Your task to perform on an android device: delete the emails in spam in the gmail app Image 0: 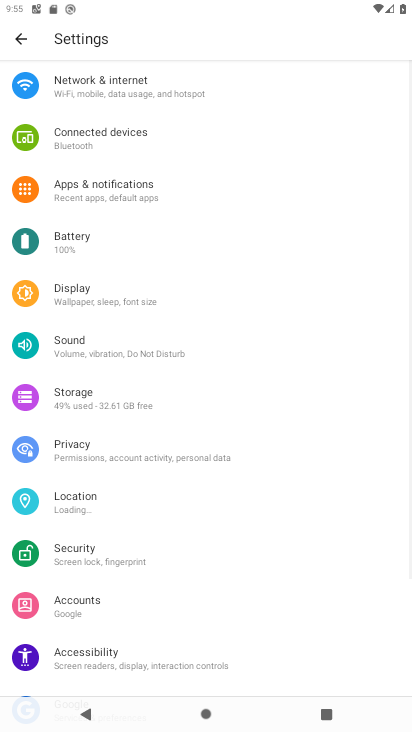
Step 0: press home button
Your task to perform on an android device: delete the emails in spam in the gmail app Image 1: 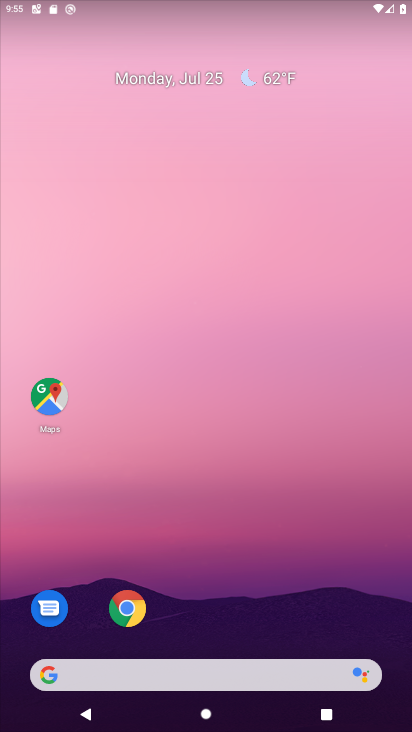
Step 1: drag from (235, 635) to (220, 170)
Your task to perform on an android device: delete the emails in spam in the gmail app Image 2: 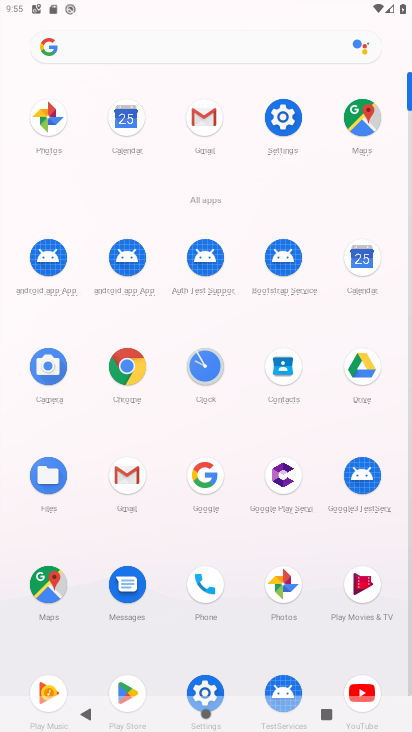
Step 2: click (200, 113)
Your task to perform on an android device: delete the emails in spam in the gmail app Image 3: 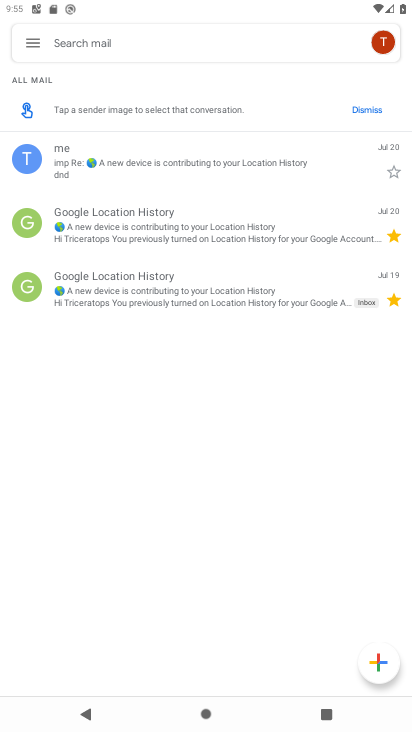
Step 3: click (29, 41)
Your task to perform on an android device: delete the emails in spam in the gmail app Image 4: 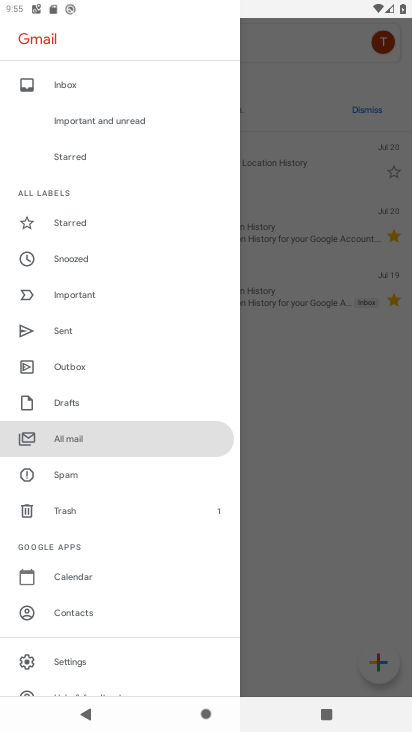
Step 4: click (78, 478)
Your task to perform on an android device: delete the emails in spam in the gmail app Image 5: 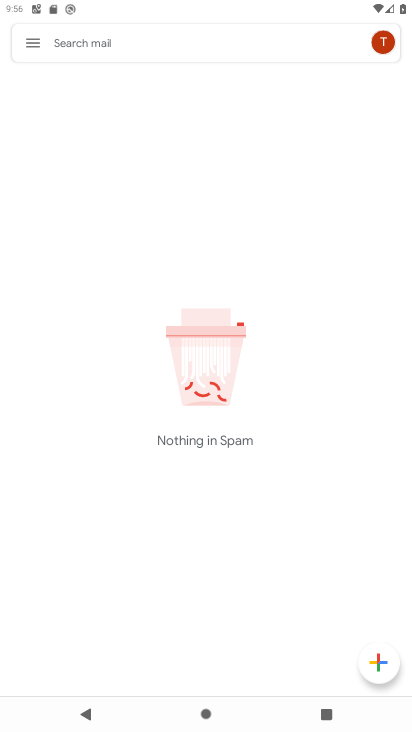
Step 5: task complete